Your task to perform on an android device: Open Amazon Image 0: 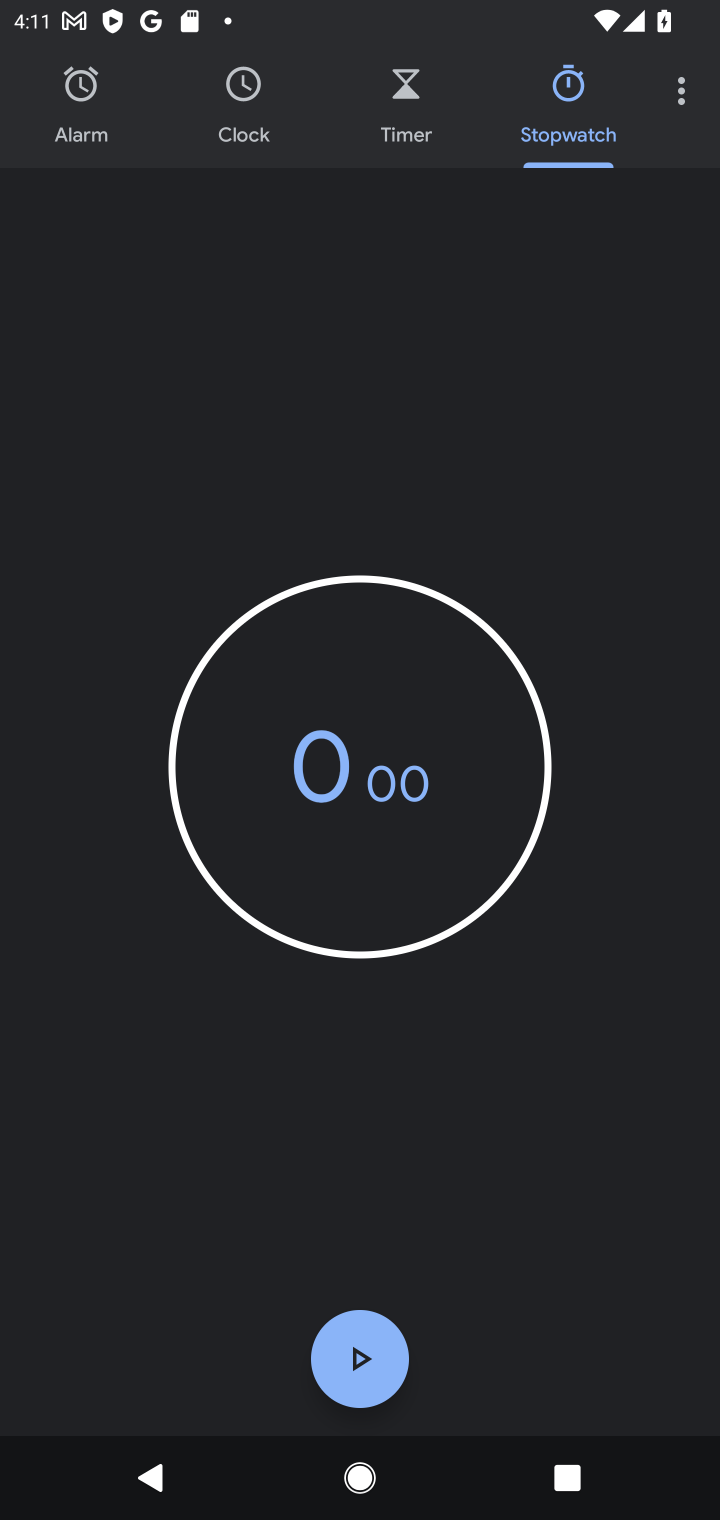
Step 0: press home button
Your task to perform on an android device: Open Amazon Image 1: 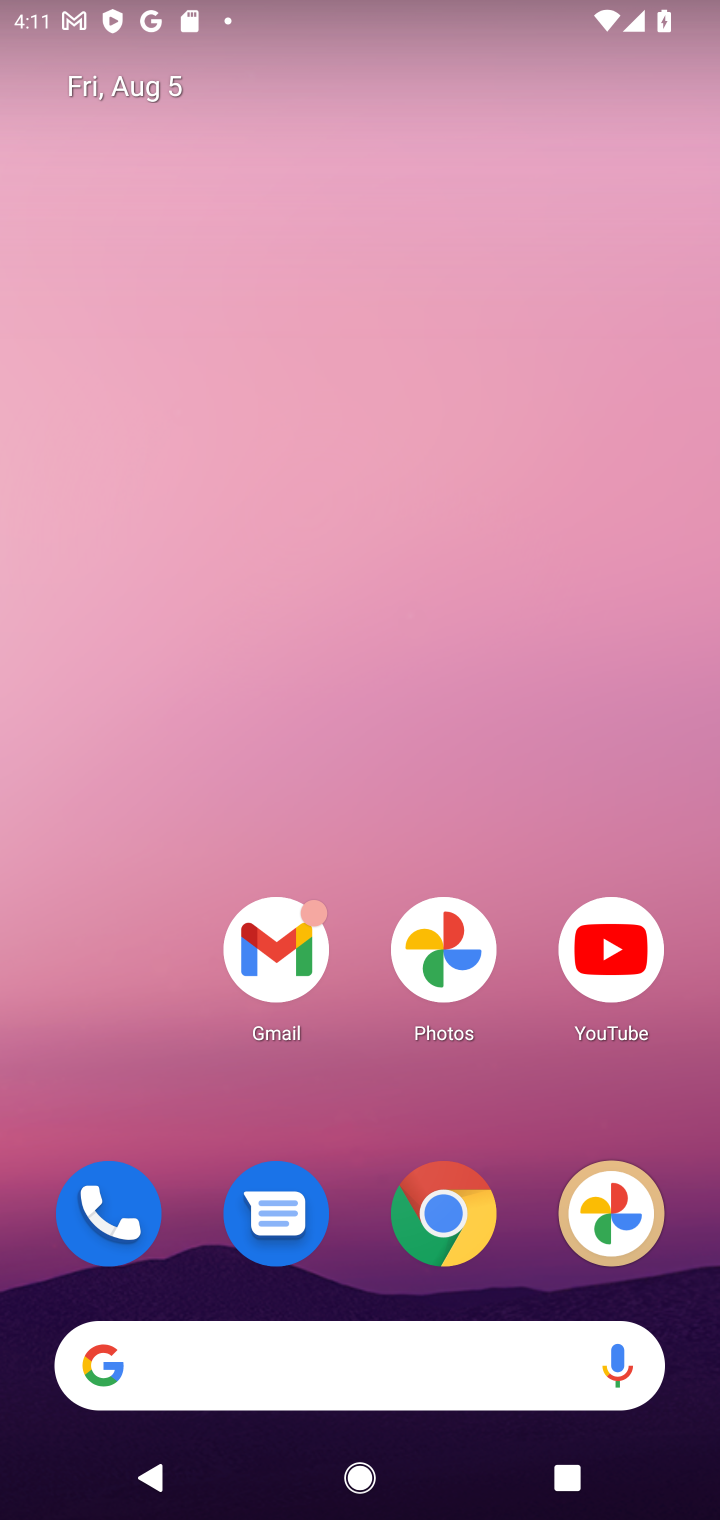
Step 1: click (417, 1222)
Your task to perform on an android device: Open Amazon Image 2: 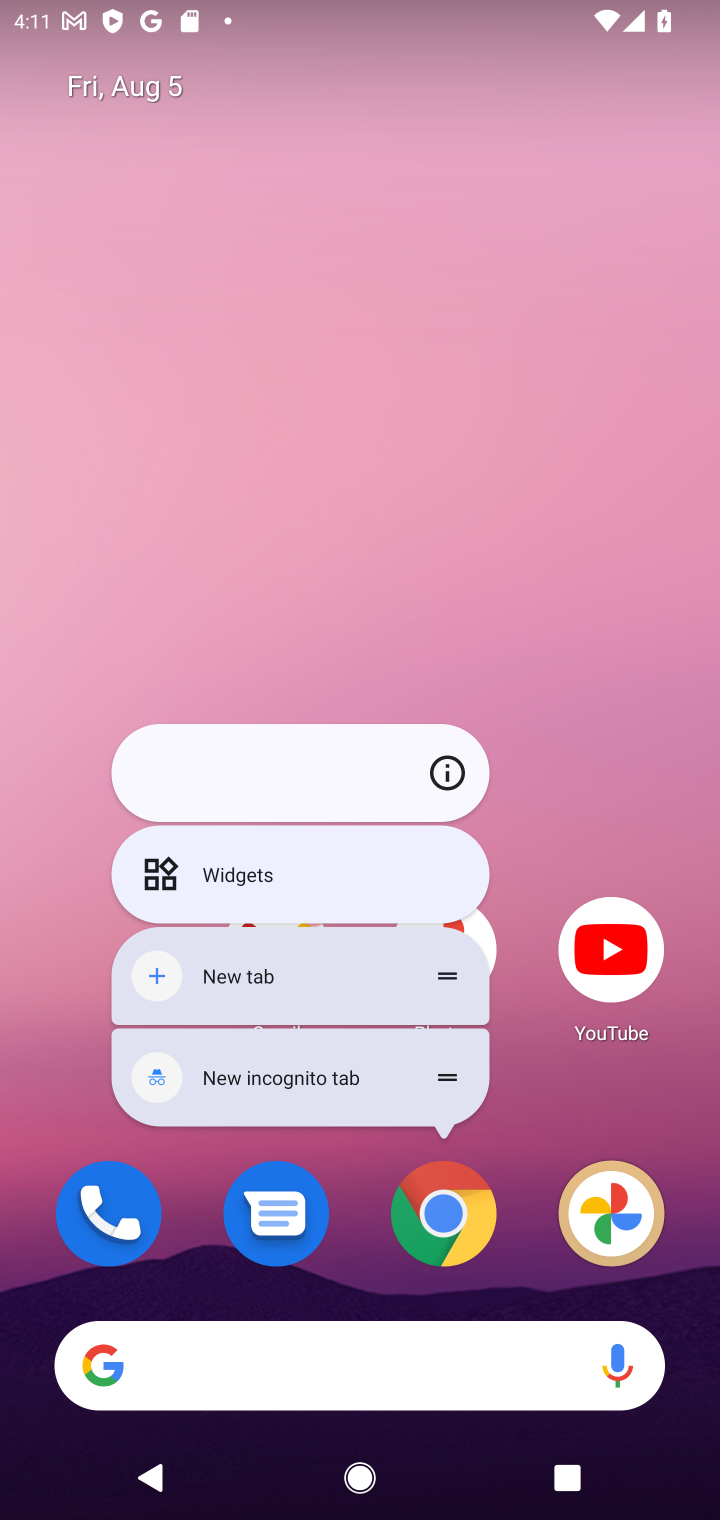
Step 2: click (417, 1222)
Your task to perform on an android device: Open Amazon Image 3: 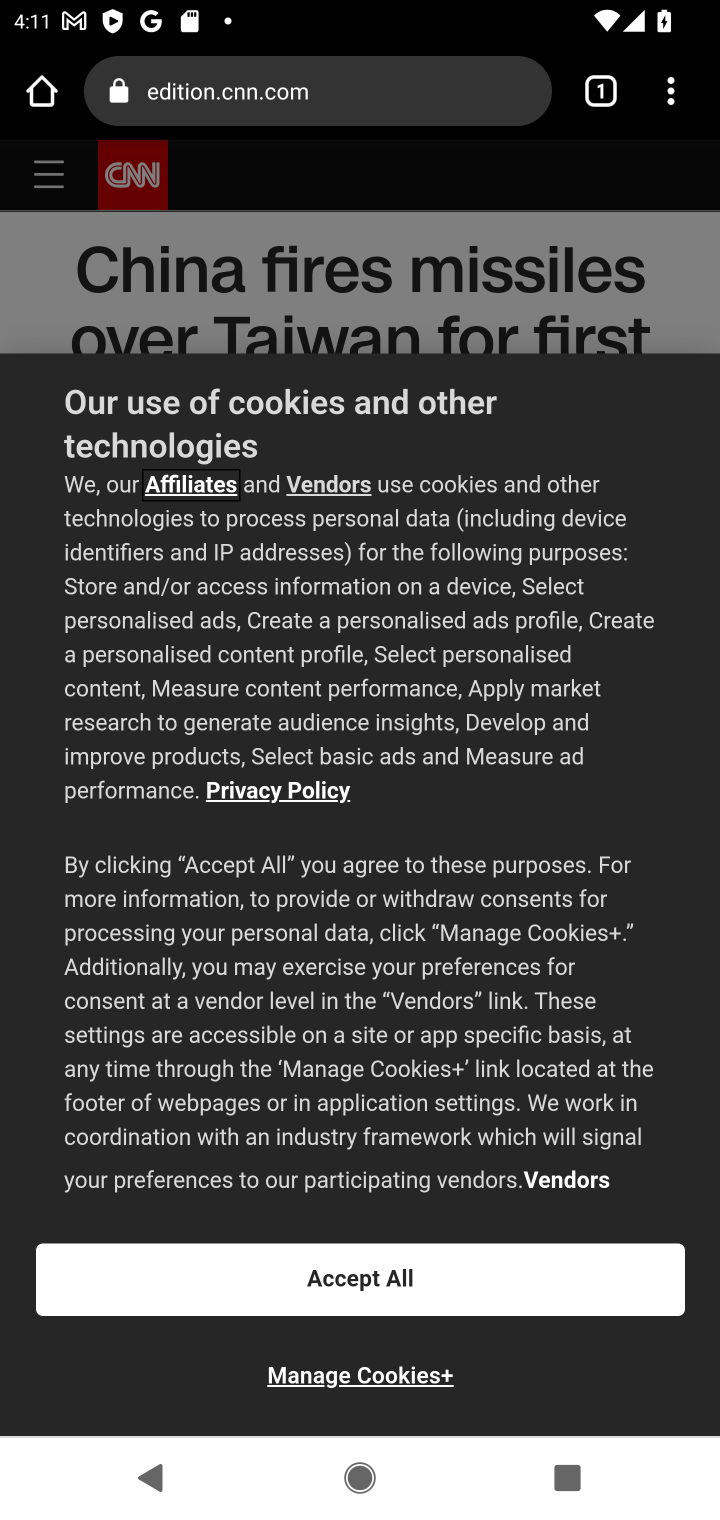
Step 3: click (475, 114)
Your task to perform on an android device: Open Amazon Image 4: 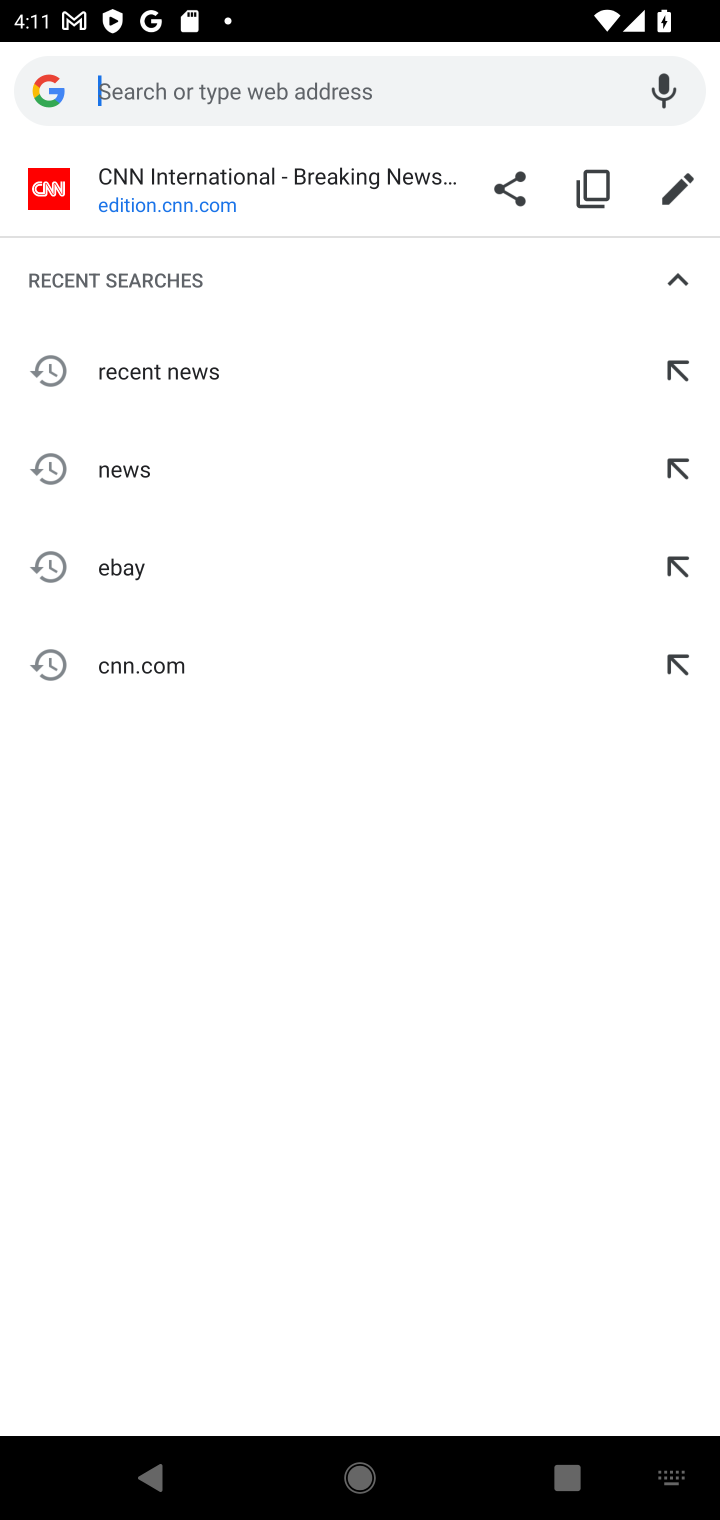
Step 4: type "amazone"
Your task to perform on an android device: Open Amazon Image 5: 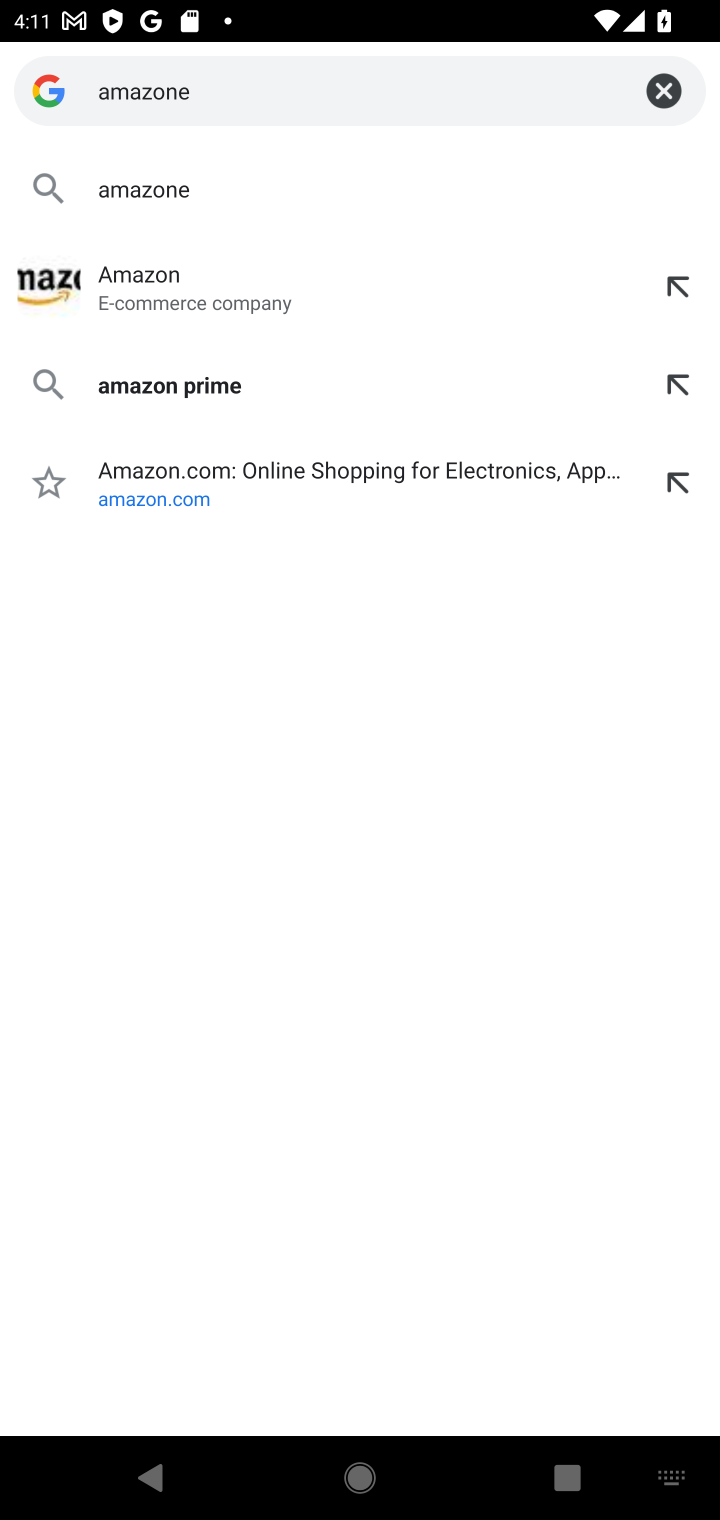
Step 5: click (314, 203)
Your task to perform on an android device: Open Amazon Image 6: 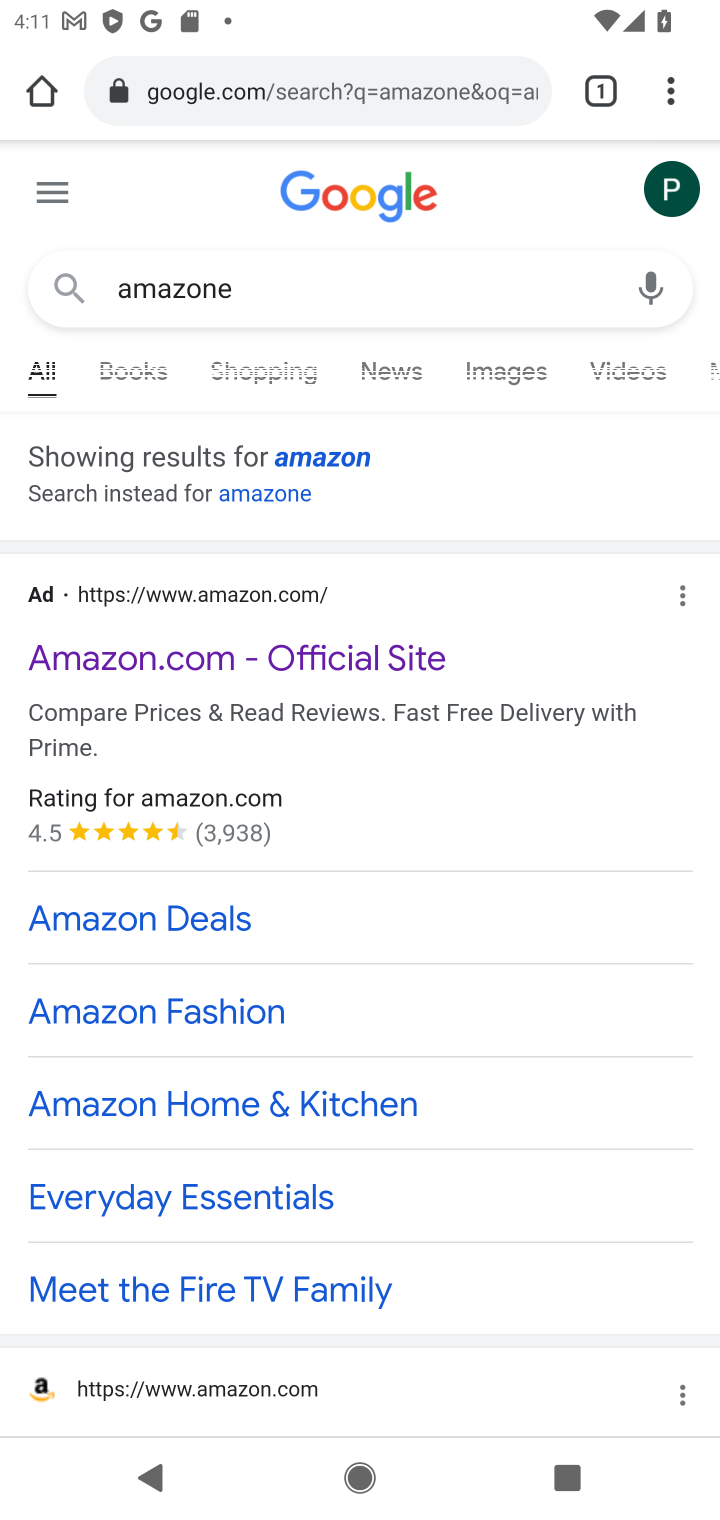
Step 6: click (366, 639)
Your task to perform on an android device: Open Amazon Image 7: 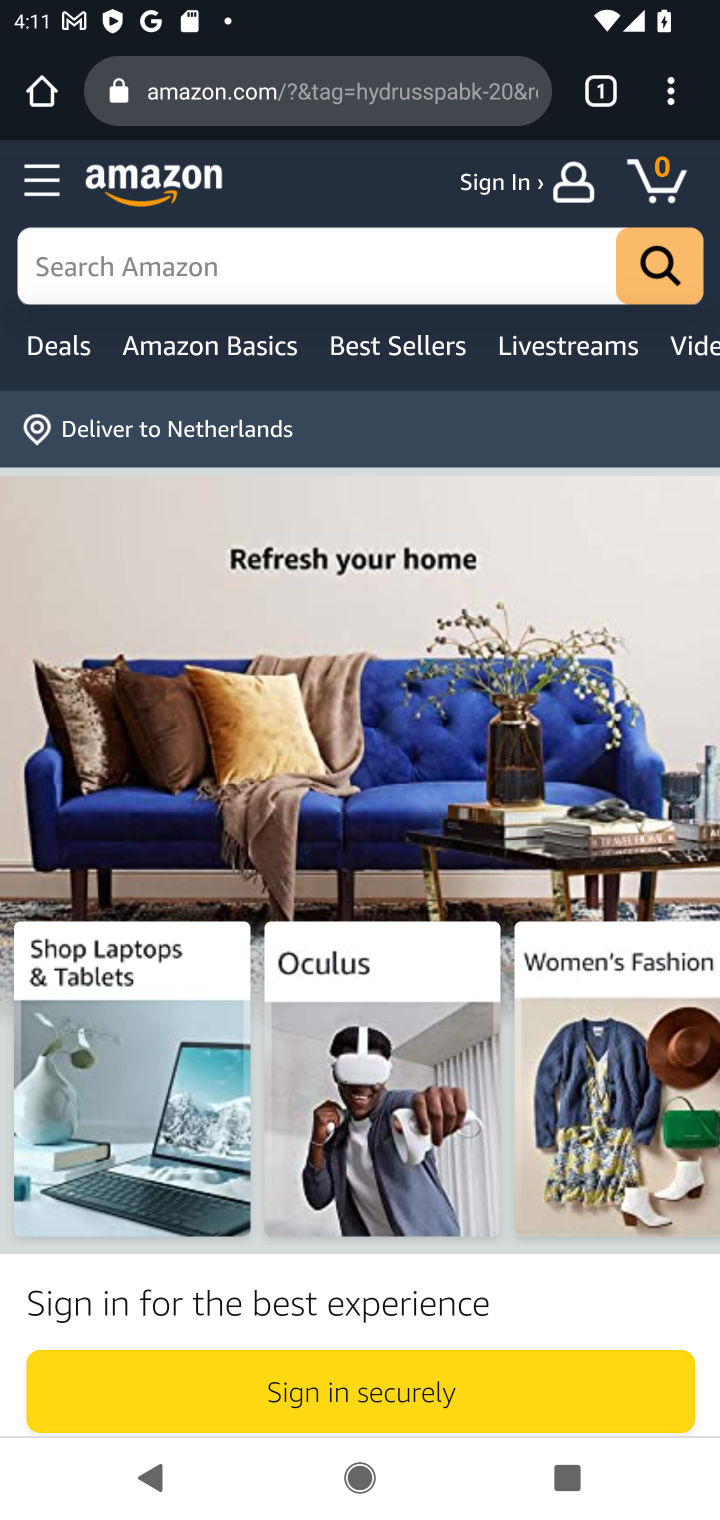
Step 7: task complete